Your task to perform on an android device: Show me popular games on the Play Store Image 0: 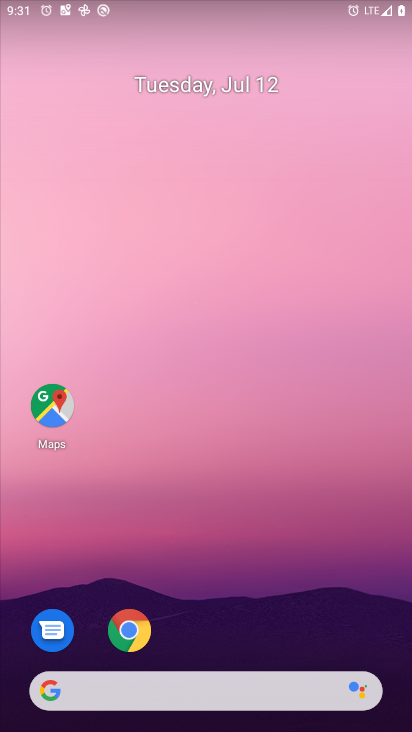
Step 0: press home button
Your task to perform on an android device: Show me popular games on the Play Store Image 1: 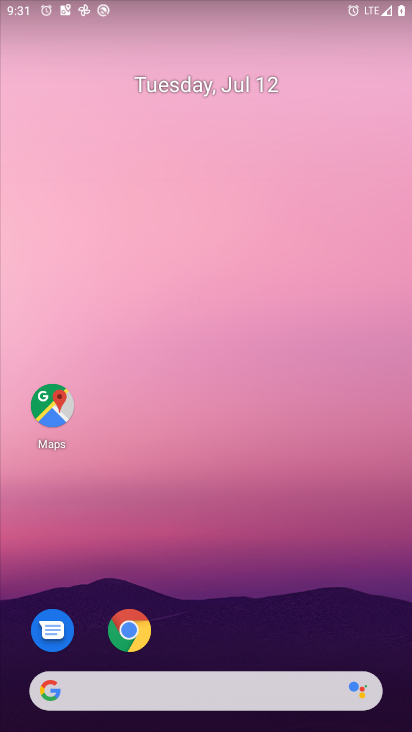
Step 1: drag from (267, 647) to (224, 93)
Your task to perform on an android device: Show me popular games on the Play Store Image 2: 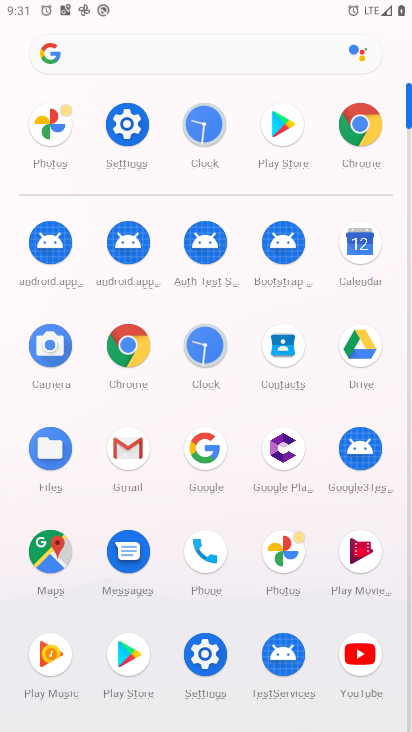
Step 2: click (120, 646)
Your task to perform on an android device: Show me popular games on the Play Store Image 3: 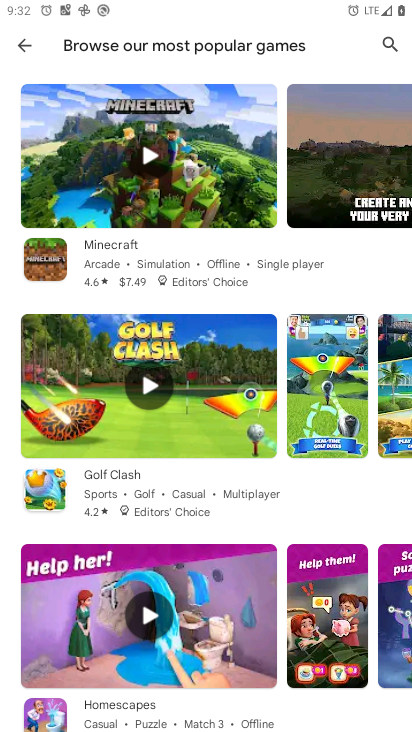
Step 3: task complete